Your task to perform on an android device: check android version Image 0: 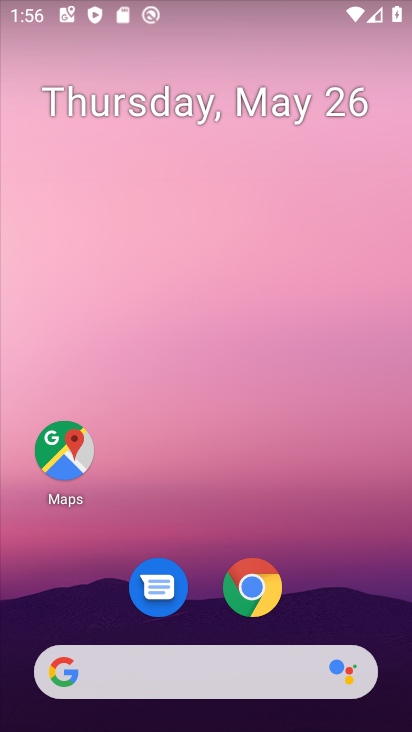
Step 0: drag from (258, 229) to (258, 13)
Your task to perform on an android device: check android version Image 1: 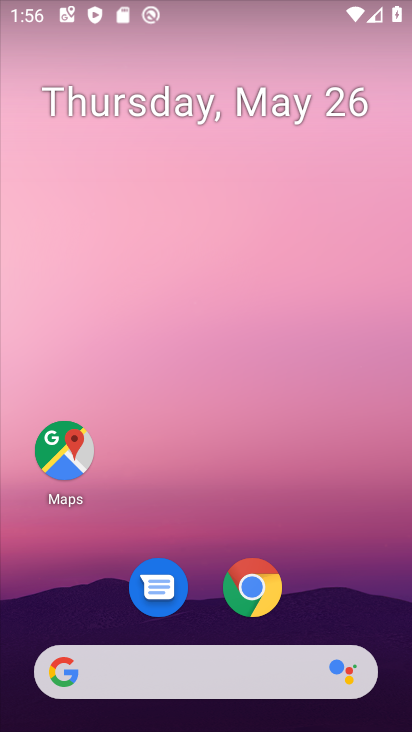
Step 1: drag from (264, 447) to (219, 28)
Your task to perform on an android device: check android version Image 2: 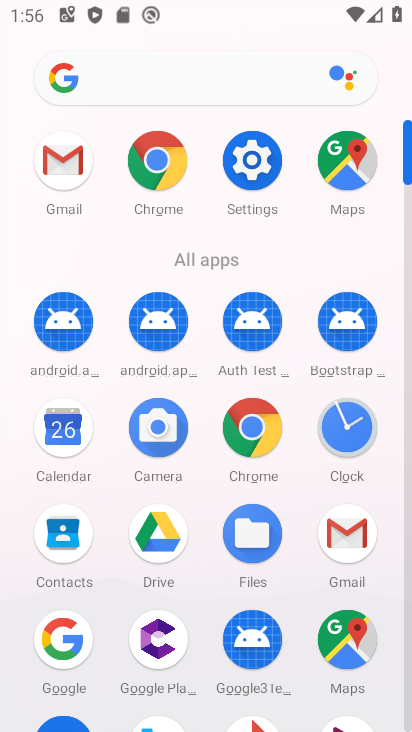
Step 2: click (253, 160)
Your task to perform on an android device: check android version Image 3: 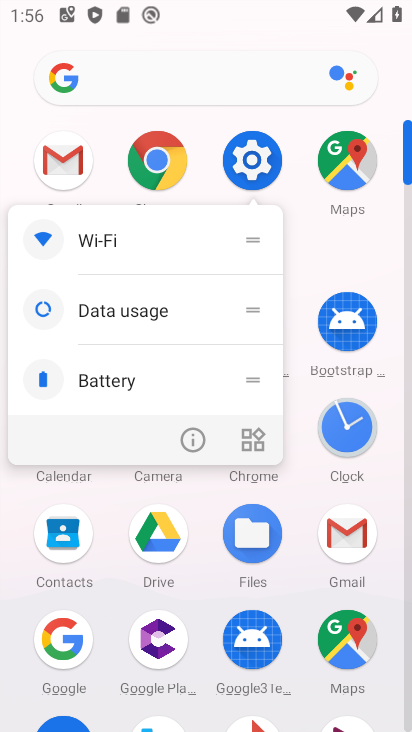
Step 3: click (253, 160)
Your task to perform on an android device: check android version Image 4: 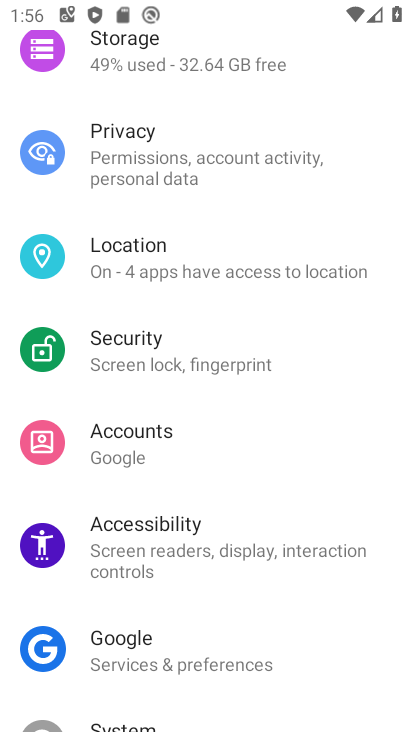
Step 4: drag from (200, 599) to (265, 67)
Your task to perform on an android device: check android version Image 5: 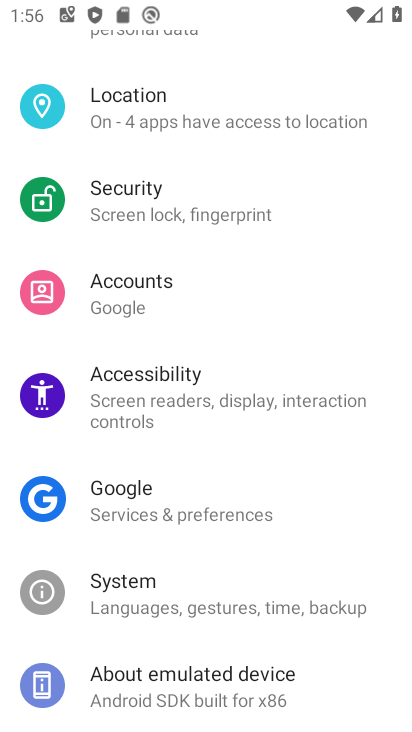
Step 5: click (155, 678)
Your task to perform on an android device: check android version Image 6: 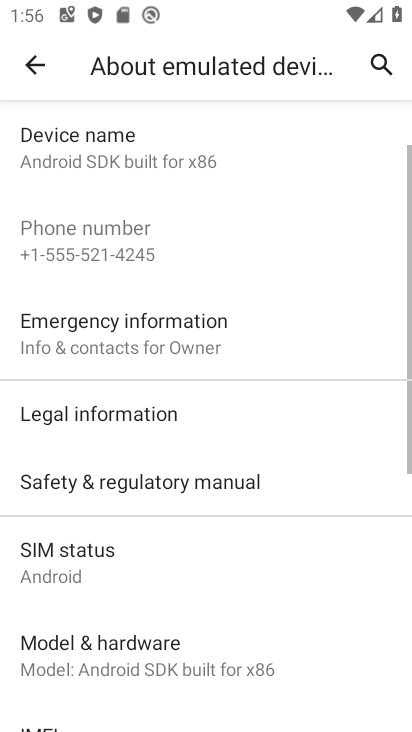
Step 6: drag from (128, 635) to (229, 55)
Your task to perform on an android device: check android version Image 7: 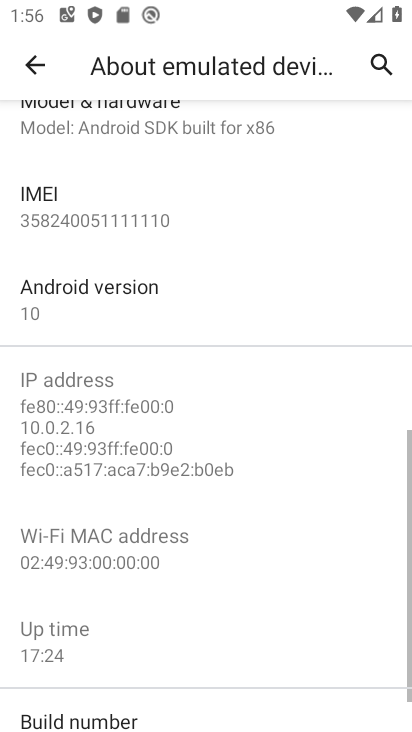
Step 7: drag from (114, 629) to (284, 0)
Your task to perform on an android device: check android version Image 8: 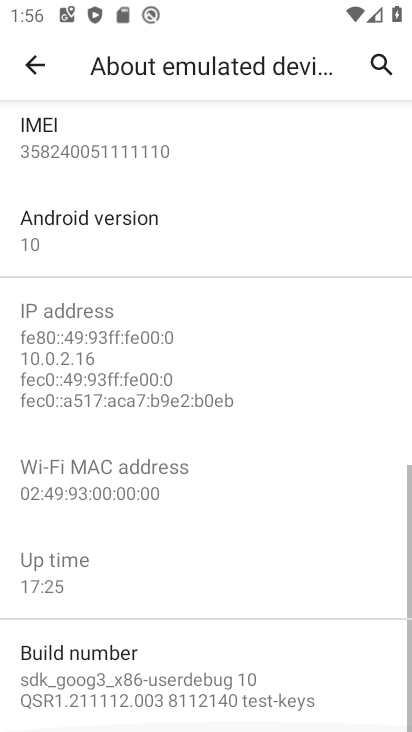
Step 8: click (68, 240)
Your task to perform on an android device: check android version Image 9: 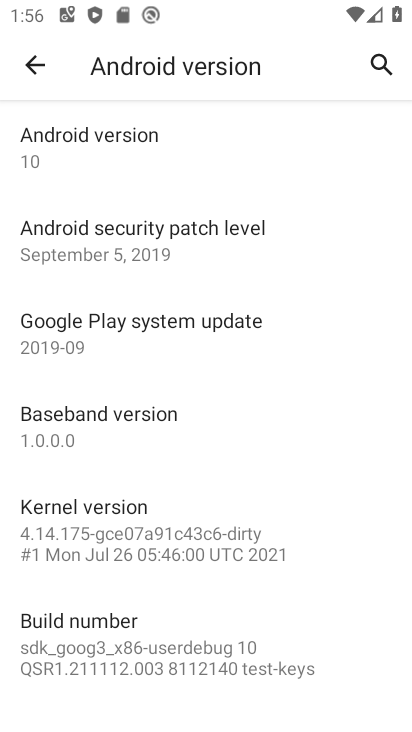
Step 9: task complete